Your task to perform on an android device: Go to Yahoo.com Image 0: 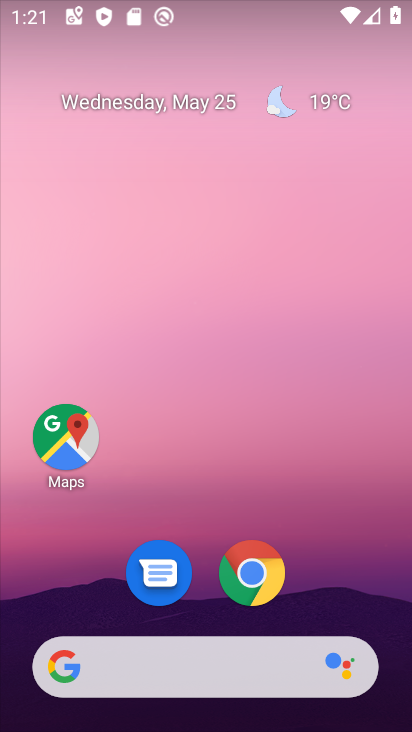
Step 0: click (250, 571)
Your task to perform on an android device: Go to Yahoo.com Image 1: 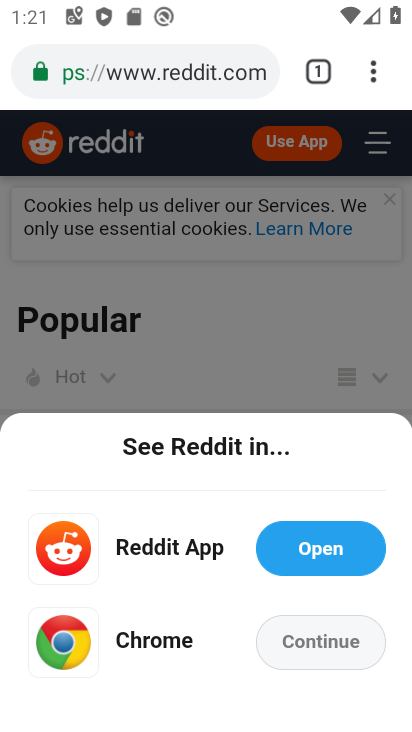
Step 1: click (235, 73)
Your task to perform on an android device: Go to Yahoo.com Image 2: 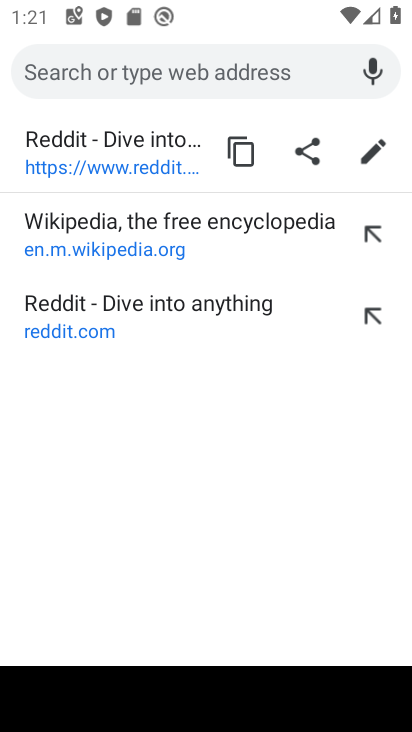
Step 2: type "yahoo.com"
Your task to perform on an android device: Go to Yahoo.com Image 3: 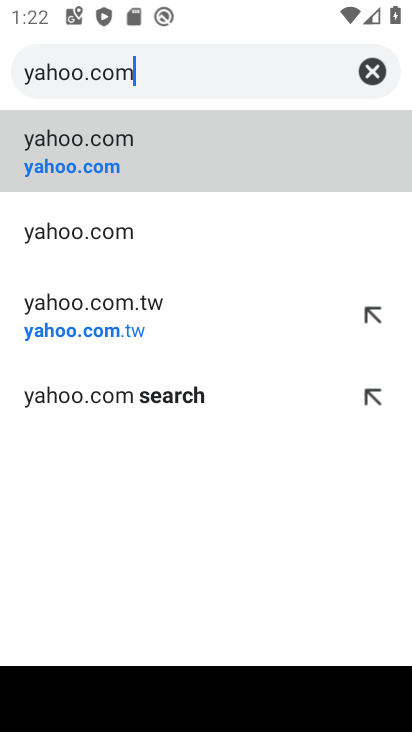
Step 3: click (77, 137)
Your task to perform on an android device: Go to Yahoo.com Image 4: 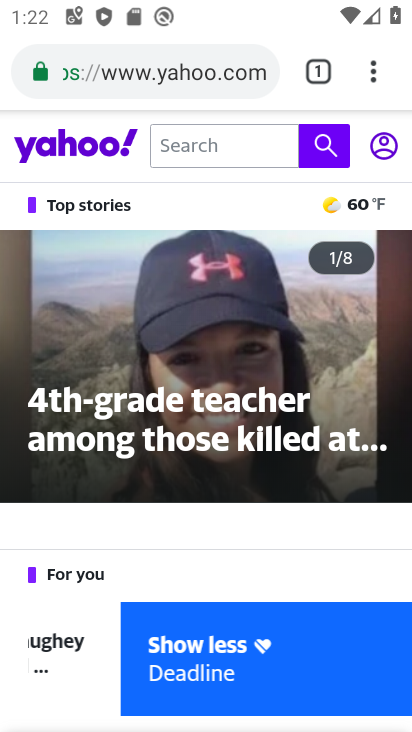
Step 4: task complete